Your task to perform on an android device: Go to privacy settings Image 0: 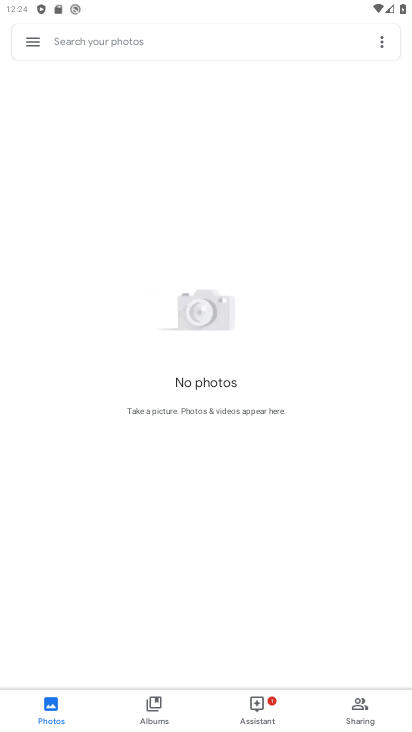
Step 0: press home button
Your task to perform on an android device: Go to privacy settings Image 1: 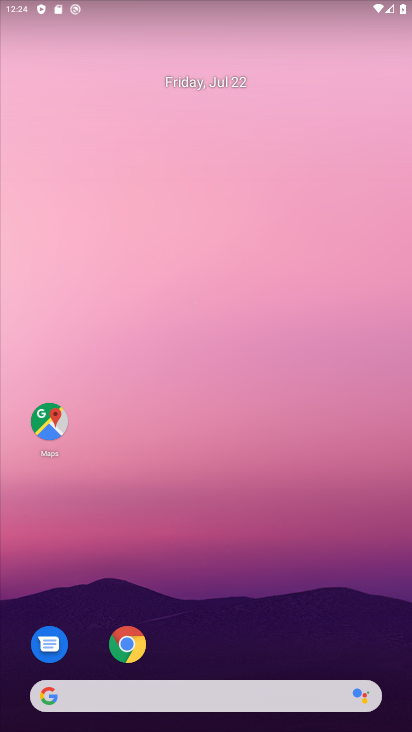
Step 1: drag from (172, 660) to (203, 175)
Your task to perform on an android device: Go to privacy settings Image 2: 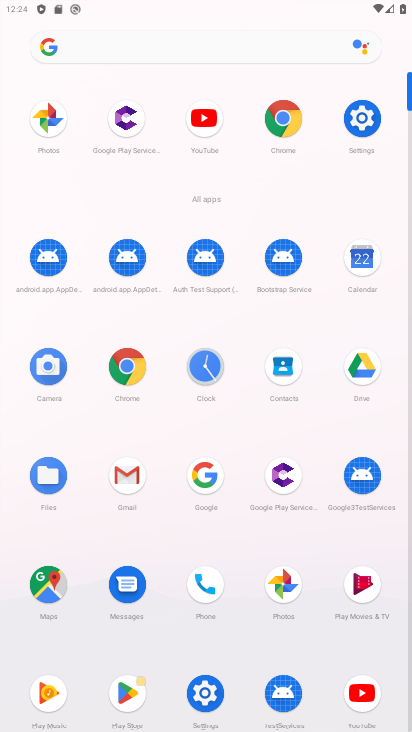
Step 2: click (345, 133)
Your task to perform on an android device: Go to privacy settings Image 3: 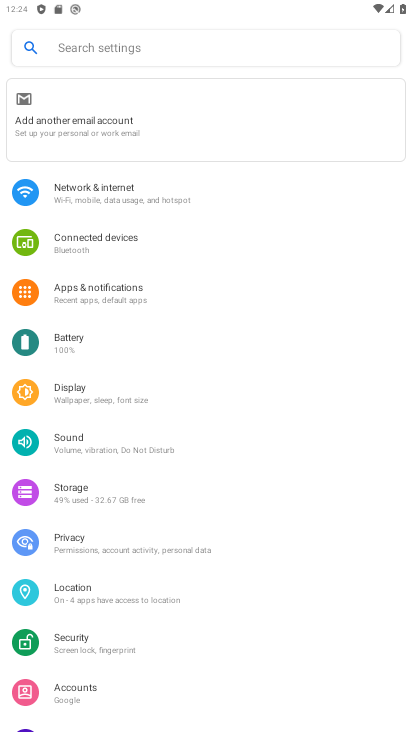
Step 3: click (72, 552)
Your task to perform on an android device: Go to privacy settings Image 4: 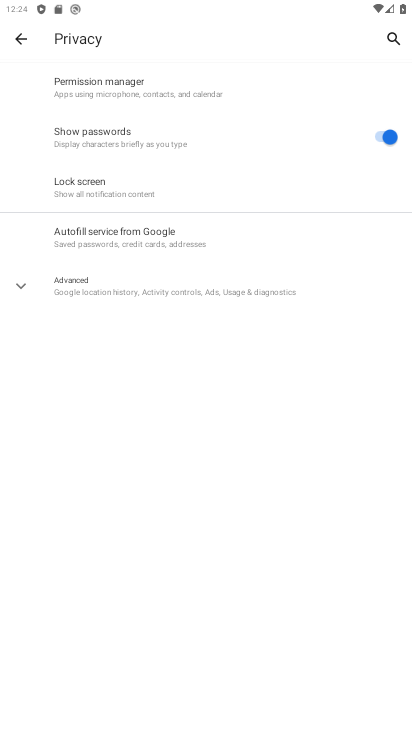
Step 4: task complete